Your task to perform on an android device: Search for pizza restaurants on Maps Image 0: 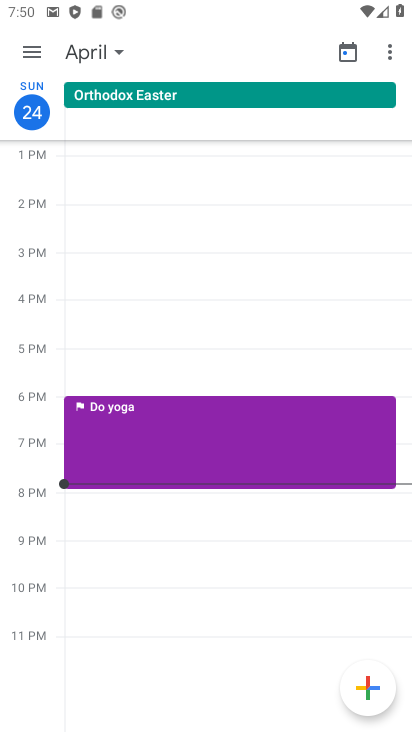
Step 0: drag from (243, 649) to (284, 108)
Your task to perform on an android device: Search for pizza restaurants on Maps Image 1: 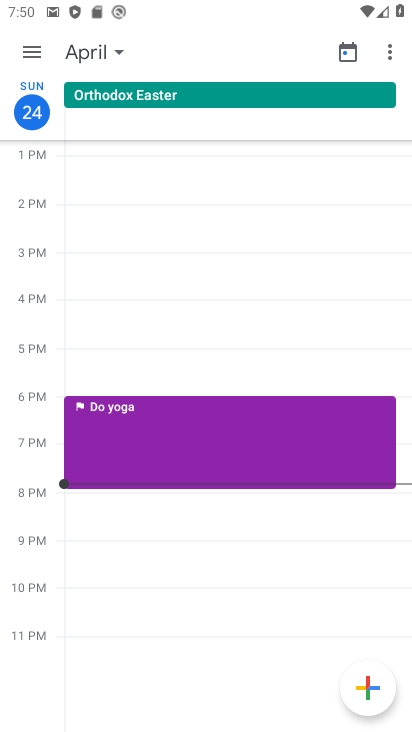
Step 1: press home button
Your task to perform on an android device: Search for pizza restaurants on Maps Image 2: 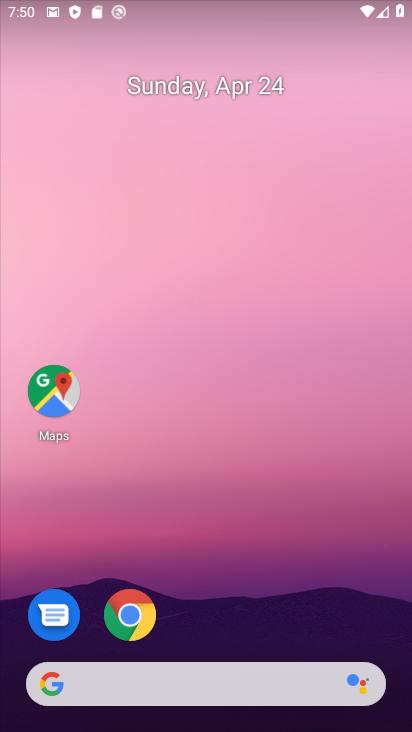
Step 2: click (40, 395)
Your task to perform on an android device: Search for pizza restaurants on Maps Image 3: 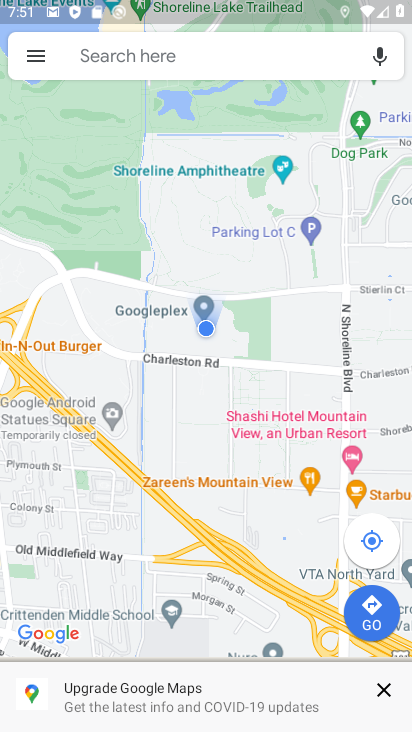
Step 3: click (164, 51)
Your task to perform on an android device: Search for pizza restaurants on Maps Image 4: 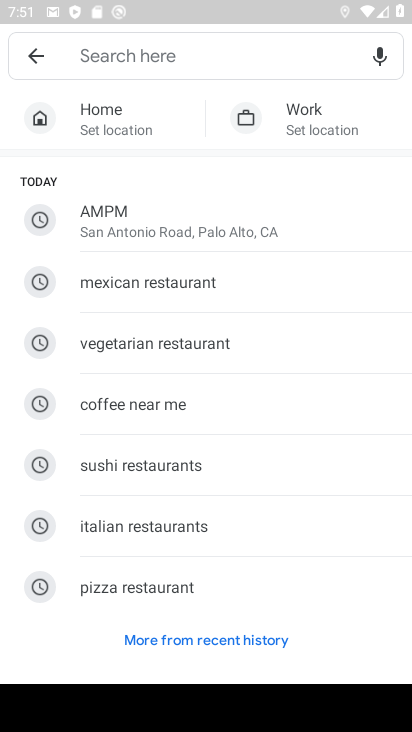
Step 4: type "pizza restaurants"
Your task to perform on an android device: Search for pizza restaurants on Maps Image 5: 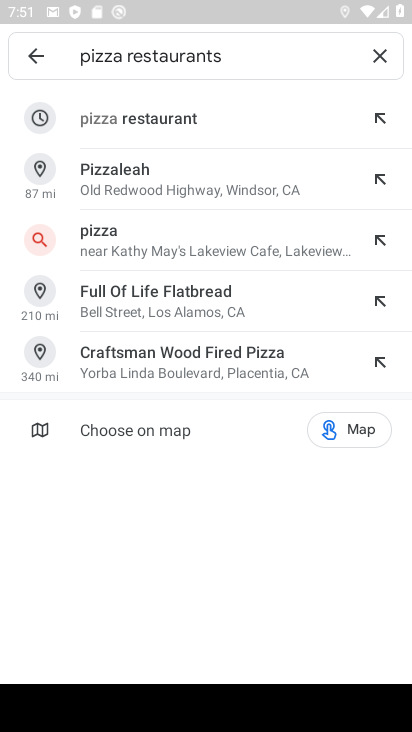
Step 5: task complete